Your task to perform on an android device: Open sound settings Image 0: 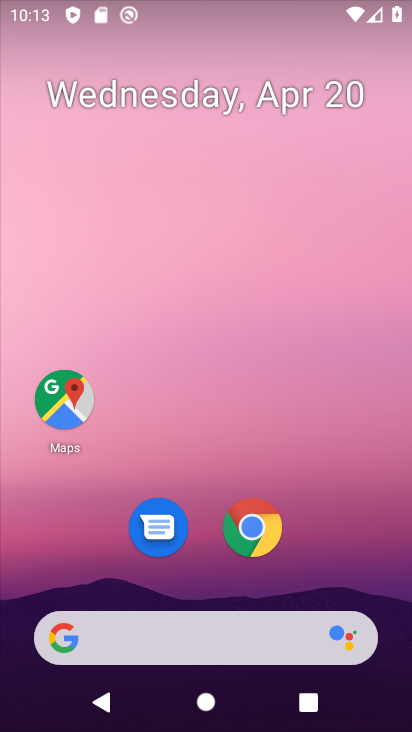
Step 0: drag from (206, 561) to (284, 14)
Your task to perform on an android device: Open sound settings Image 1: 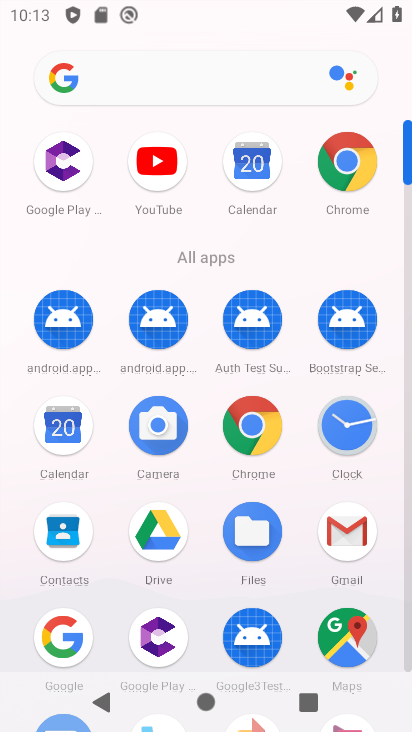
Step 1: drag from (196, 573) to (211, 101)
Your task to perform on an android device: Open sound settings Image 2: 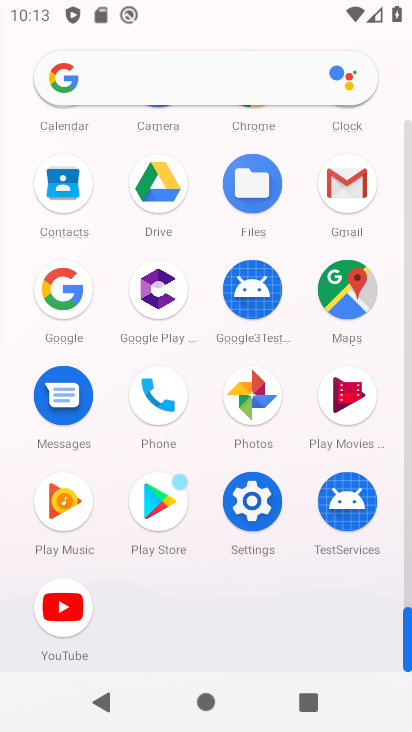
Step 2: click (254, 526)
Your task to perform on an android device: Open sound settings Image 3: 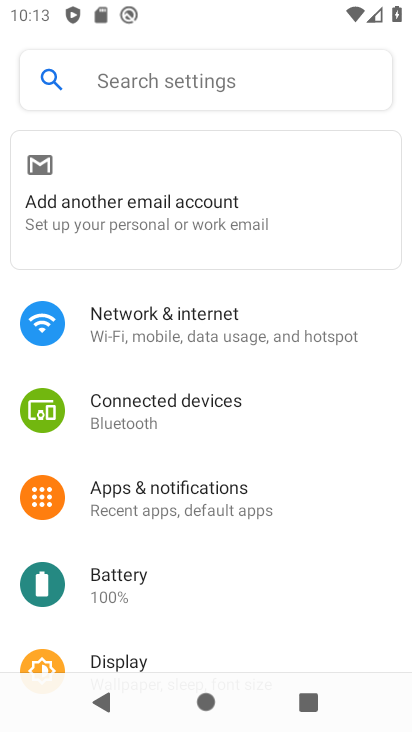
Step 3: drag from (144, 573) to (193, 179)
Your task to perform on an android device: Open sound settings Image 4: 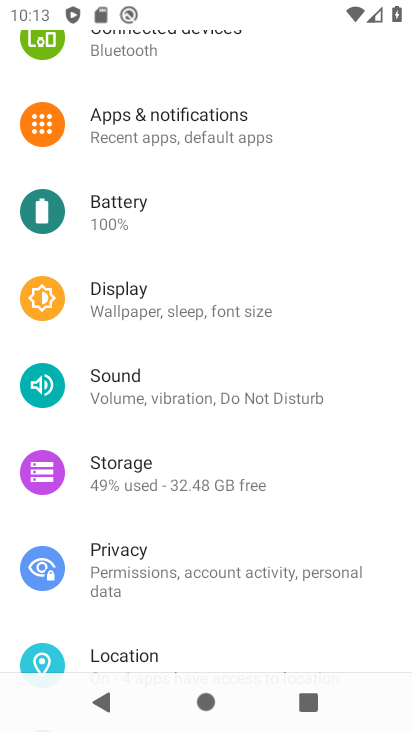
Step 4: click (156, 397)
Your task to perform on an android device: Open sound settings Image 5: 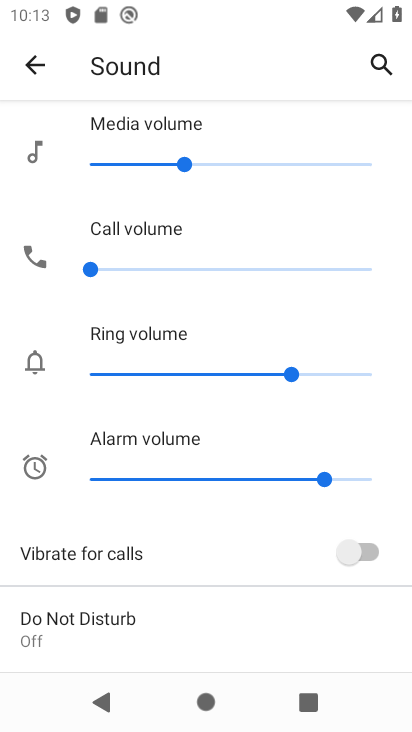
Step 5: task complete